Your task to perform on an android device: check storage Image 0: 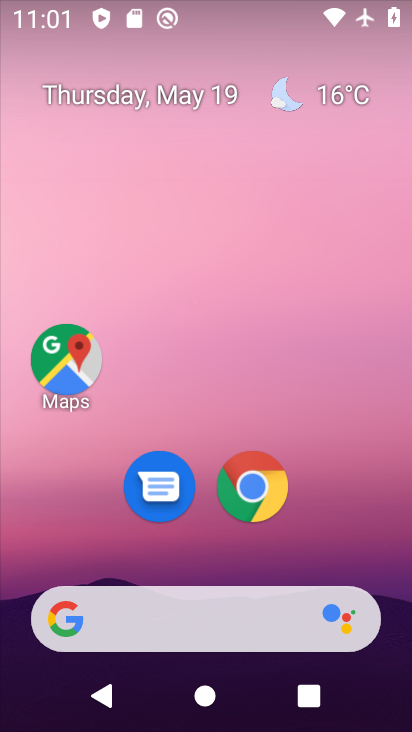
Step 0: drag from (358, 541) to (323, 6)
Your task to perform on an android device: check storage Image 1: 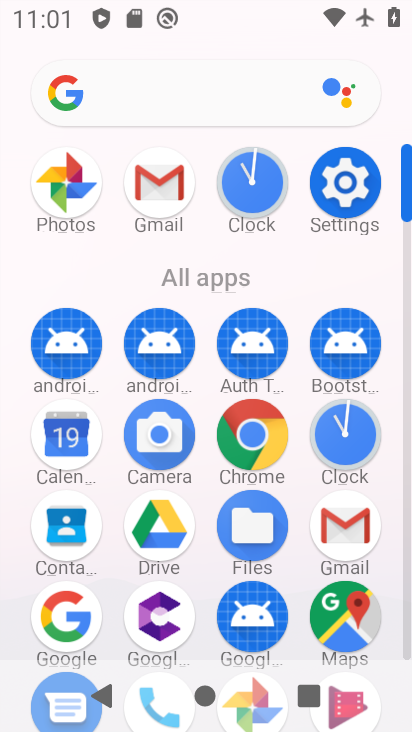
Step 1: click (361, 197)
Your task to perform on an android device: check storage Image 2: 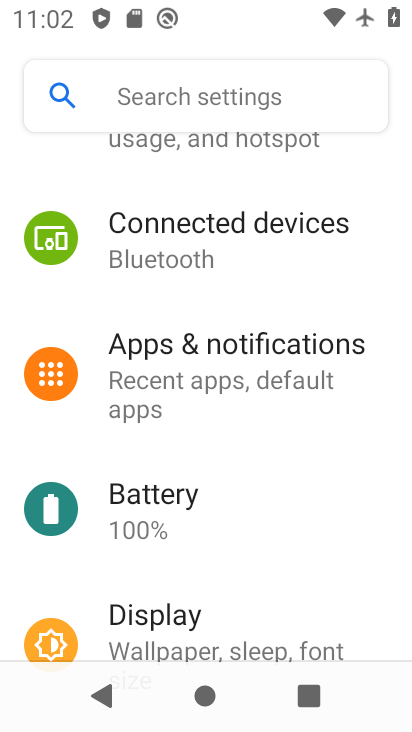
Step 2: drag from (217, 527) to (236, 288)
Your task to perform on an android device: check storage Image 3: 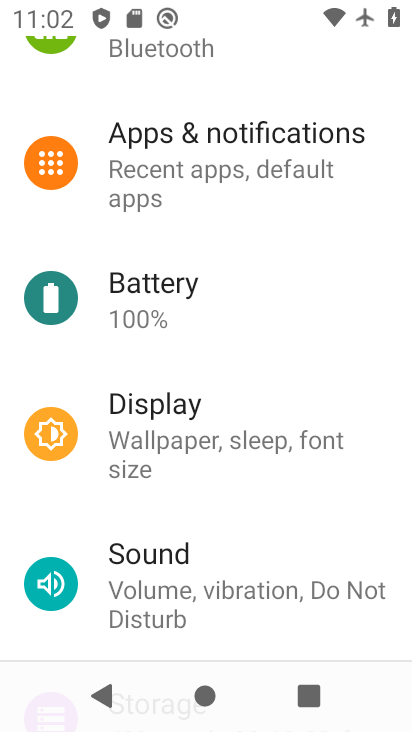
Step 3: drag from (223, 529) to (244, 311)
Your task to perform on an android device: check storage Image 4: 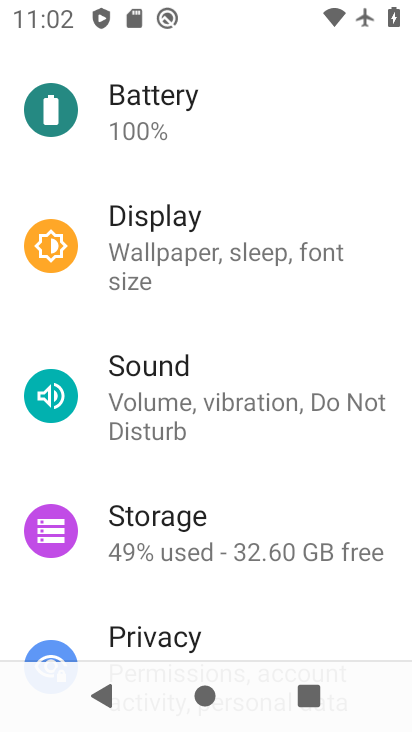
Step 4: drag from (195, 597) to (247, 330)
Your task to perform on an android device: check storage Image 5: 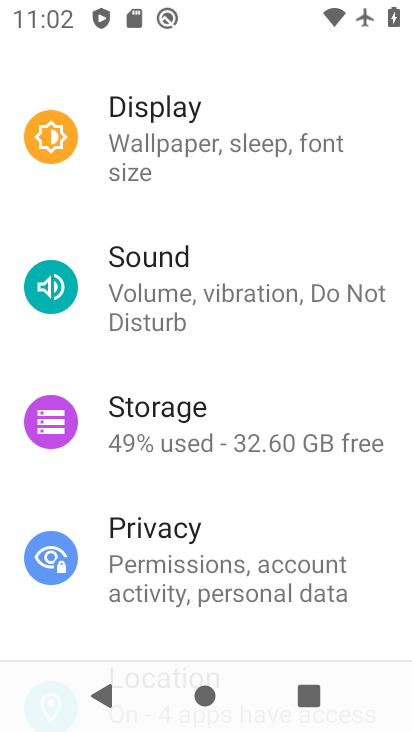
Step 5: click (215, 437)
Your task to perform on an android device: check storage Image 6: 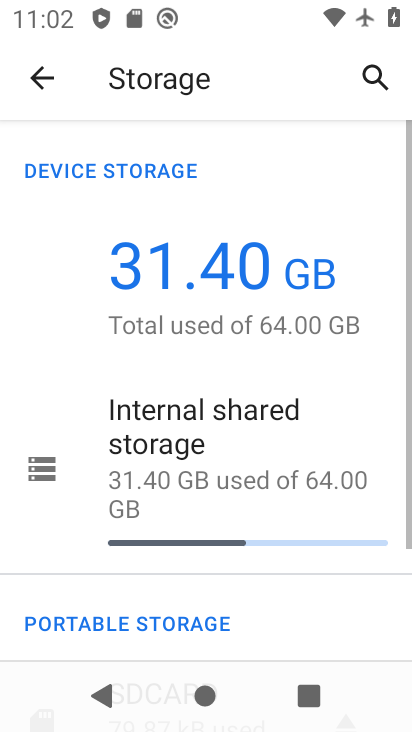
Step 6: task complete